Your task to perform on an android device: Open Reddit.com Image 0: 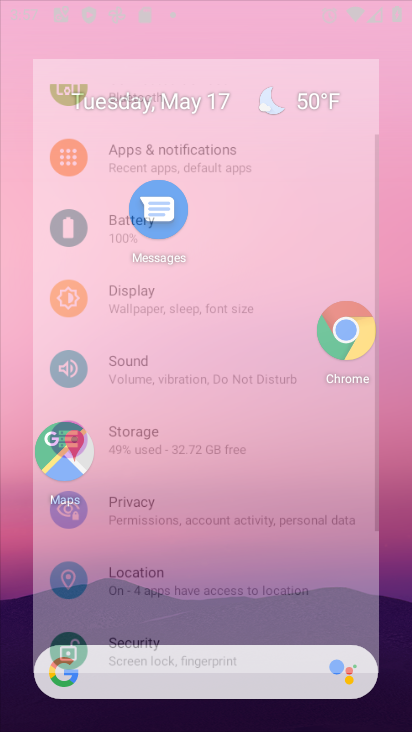
Step 0: drag from (260, 570) to (275, 51)
Your task to perform on an android device: Open Reddit.com Image 1: 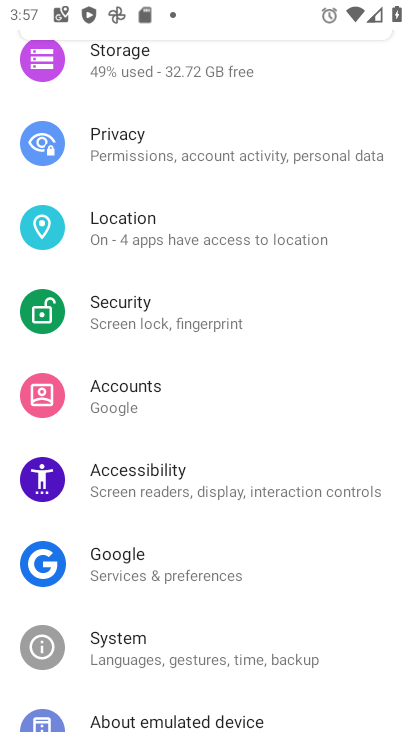
Step 1: press home button
Your task to perform on an android device: Open Reddit.com Image 2: 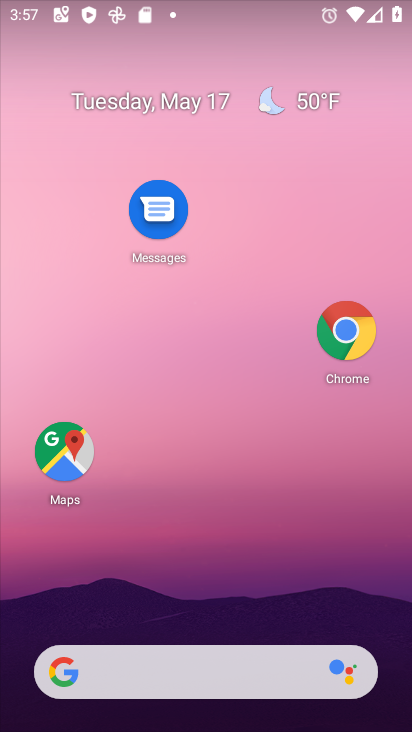
Step 2: click (338, 313)
Your task to perform on an android device: Open Reddit.com Image 3: 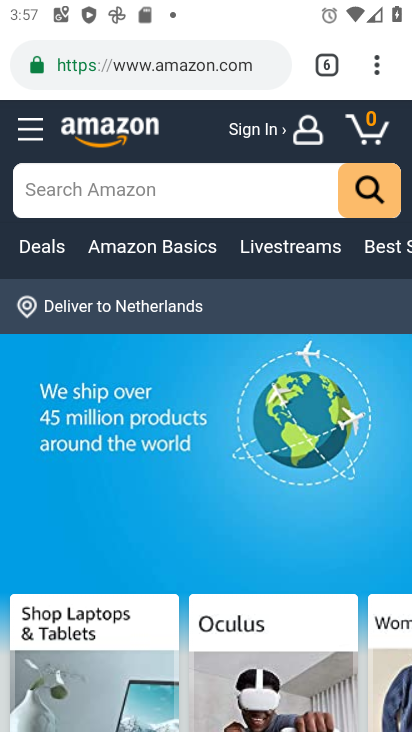
Step 3: click (172, 85)
Your task to perform on an android device: Open Reddit.com Image 4: 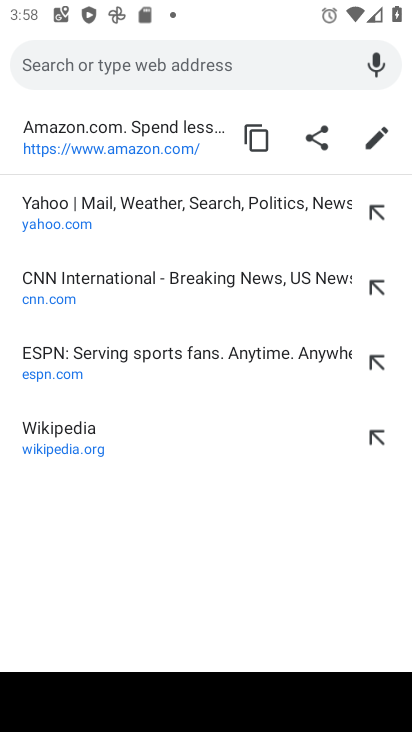
Step 4: type "reddit"
Your task to perform on an android device: Open Reddit.com Image 5: 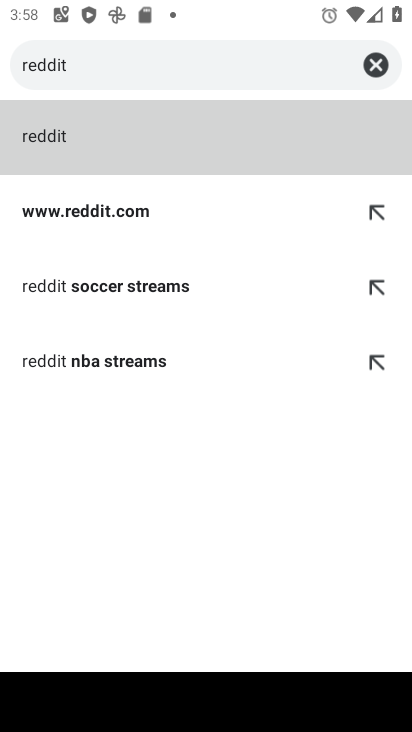
Step 5: click (116, 204)
Your task to perform on an android device: Open Reddit.com Image 6: 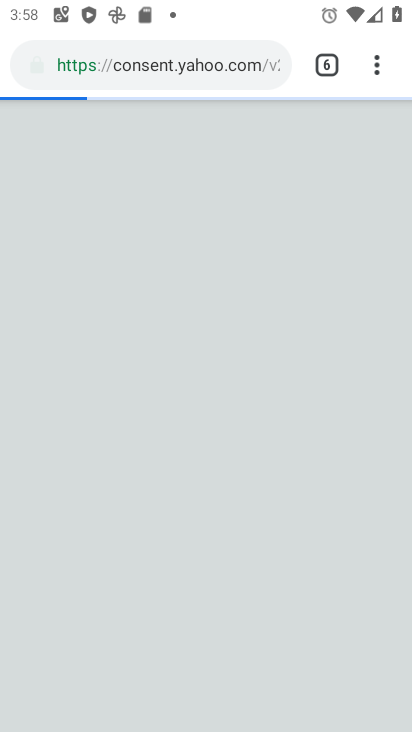
Step 6: task complete